Your task to perform on an android device: Open wifi settings Image 0: 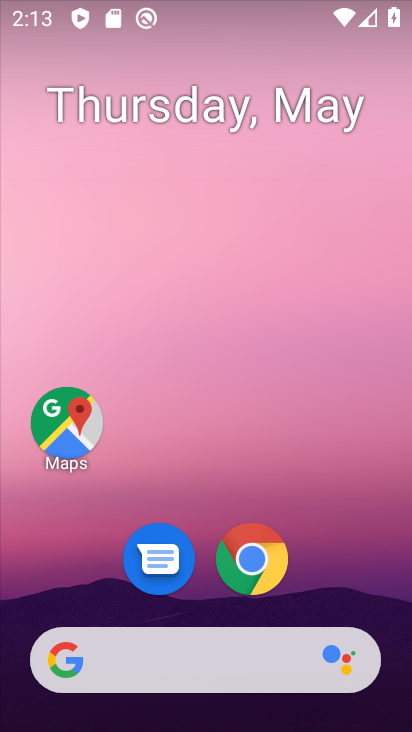
Step 0: drag from (215, 601) to (264, 163)
Your task to perform on an android device: Open wifi settings Image 1: 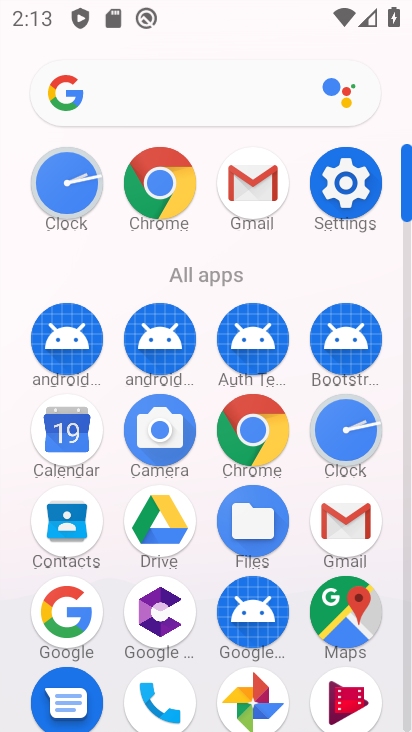
Step 1: click (363, 194)
Your task to perform on an android device: Open wifi settings Image 2: 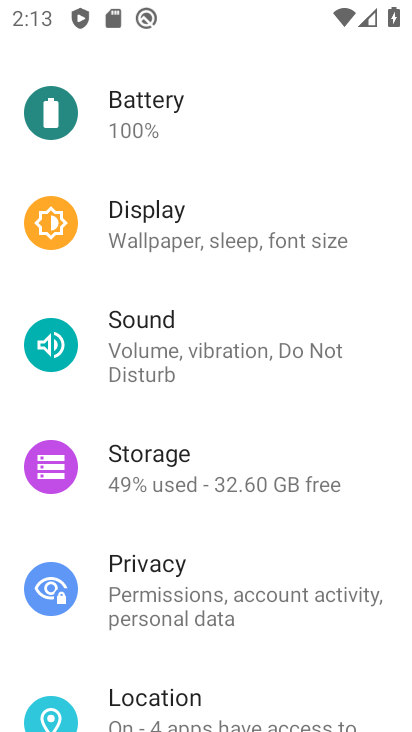
Step 2: drag from (205, 173) to (201, 587)
Your task to perform on an android device: Open wifi settings Image 3: 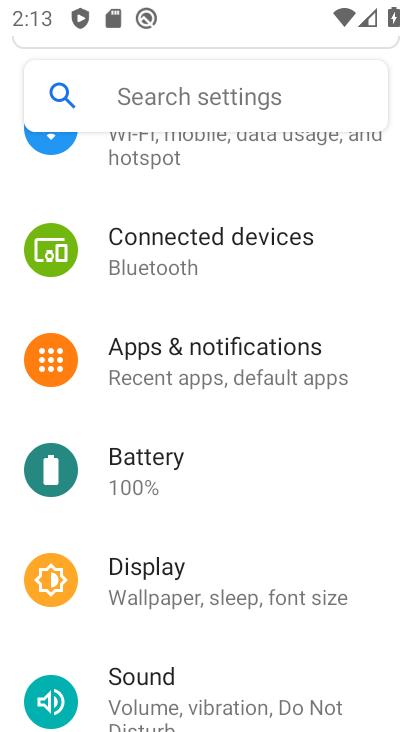
Step 3: drag from (235, 207) to (258, 546)
Your task to perform on an android device: Open wifi settings Image 4: 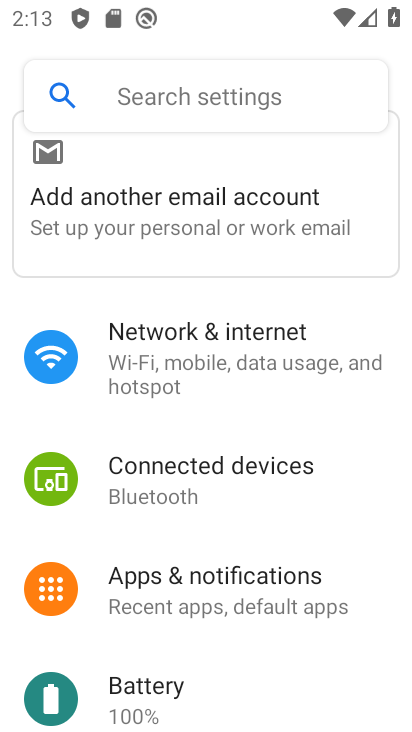
Step 4: click (184, 325)
Your task to perform on an android device: Open wifi settings Image 5: 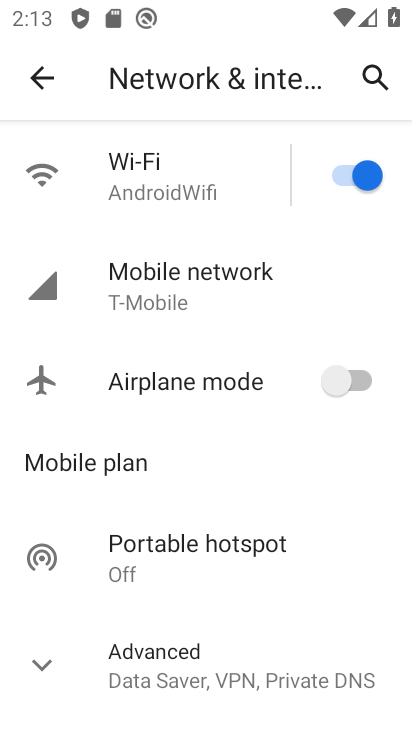
Step 5: click (183, 189)
Your task to perform on an android device: Open wifi settings Image 6: 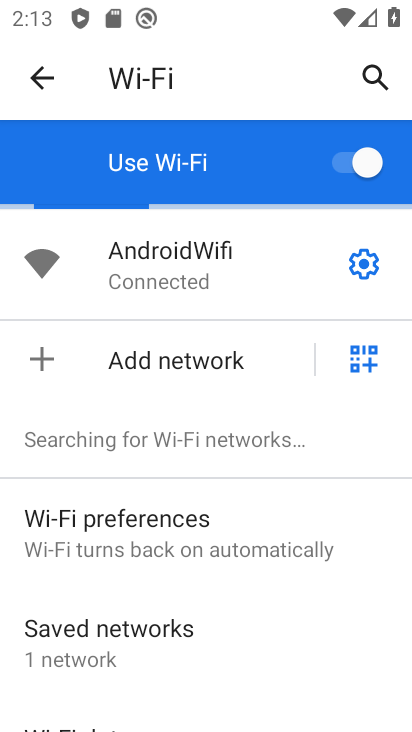
Step 6: task complete